Your task to perform on an android device: Open the web browser Image 0: 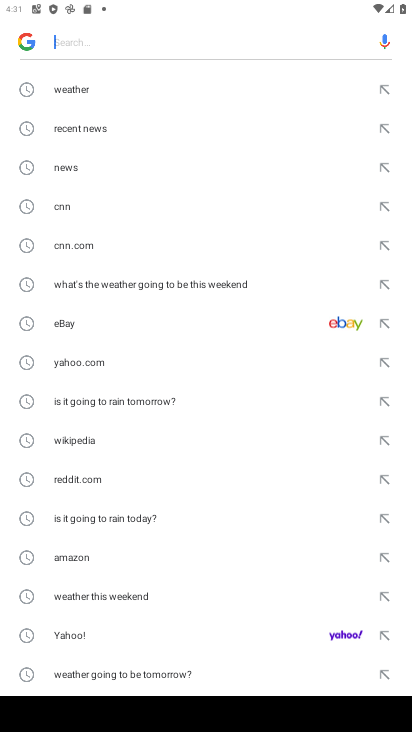
Step 0: press home button
Your task to perform on an android device: Open the web browser Image 1: 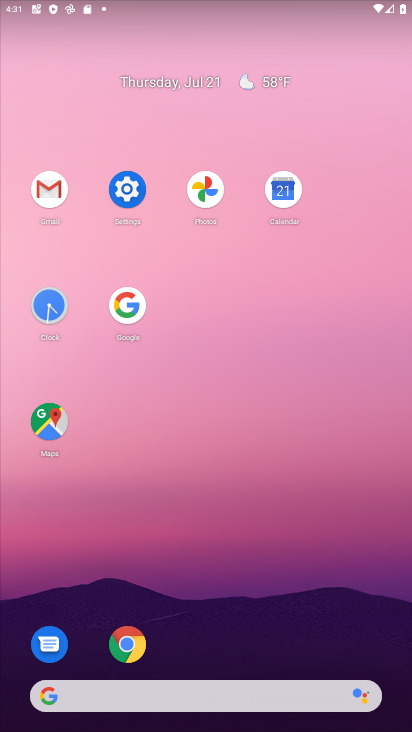
Step 1: click (122, 645)
Your task to perform on an android device: Open the web browser Image 2: 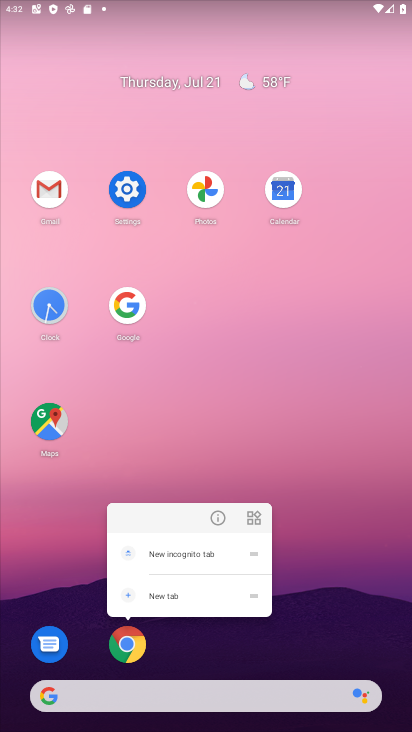
Step 2: click (115, 656)
Your task to perform on an android device: Open the web browser Image 3: 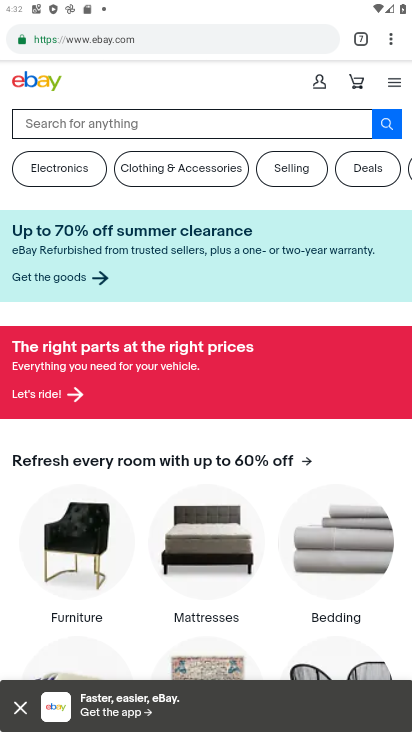
Step 3: task complete